Your task to perform on an android device: change your default location settings in chrome Image 0: 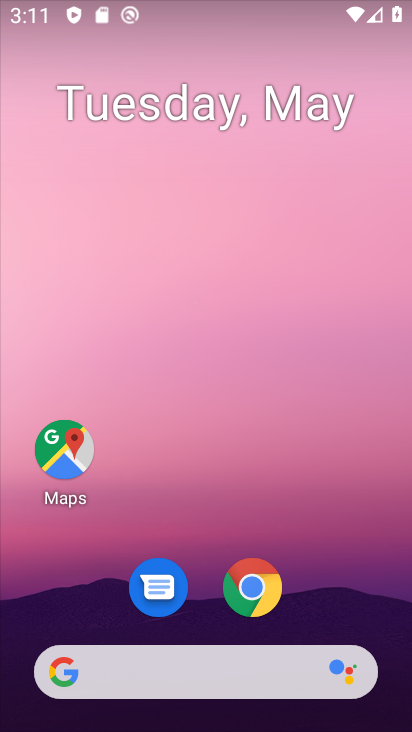
Step 0: click (238, 588)
Your task to perform on an android device: change your default location settings in chrome Image 1: 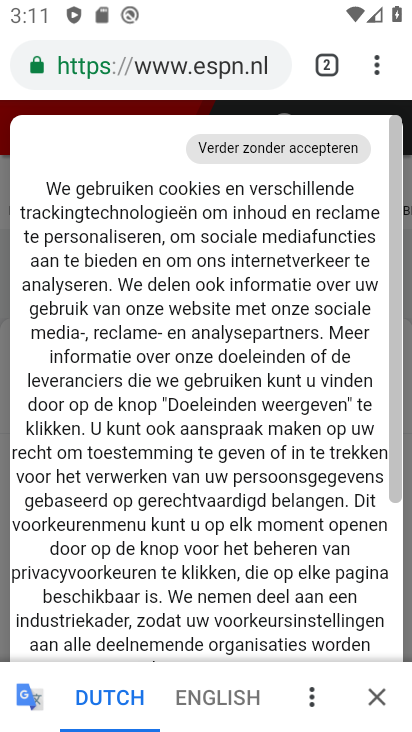
Step 1: click (366, 62)
Your task to perform on an android device: change your default location settings in chrome Image 2: 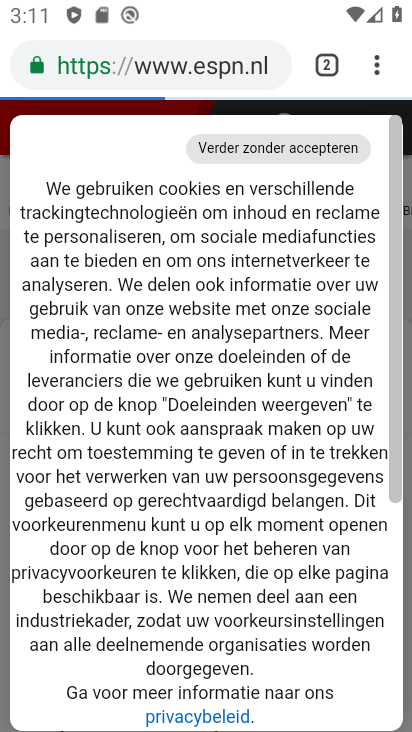
Step 2: click (377, 55)
Your task to perform on an android device: change your default location settings in chrome Image 3: 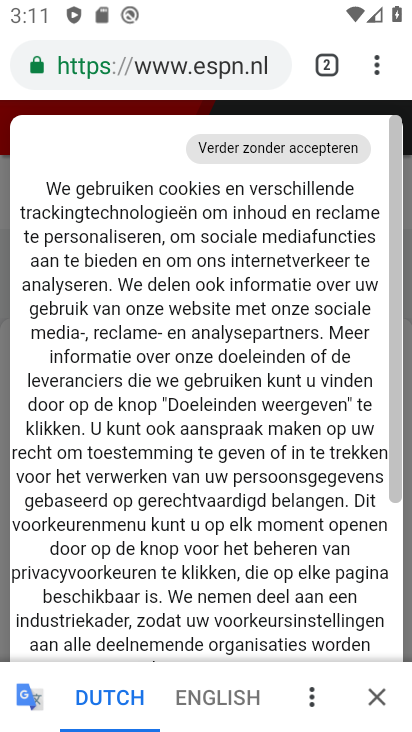
Step 3: click (372, 67)
Your task to perform on an android device: change your default location settings in chrome Image 4: 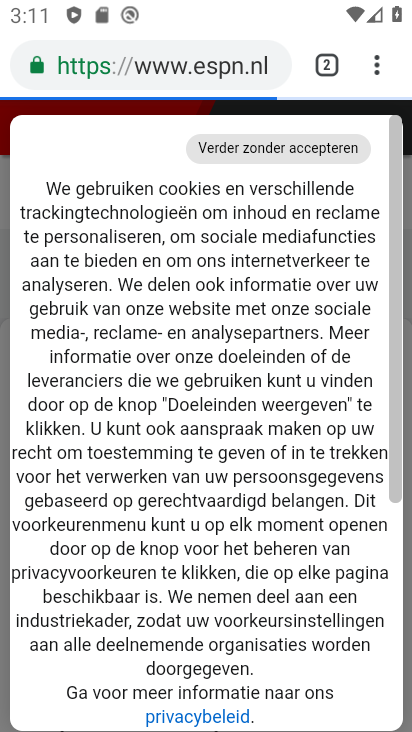
Step 4: click (377, 68)
Your task to perform on an android device: change your default location settings in chrome Image 5: 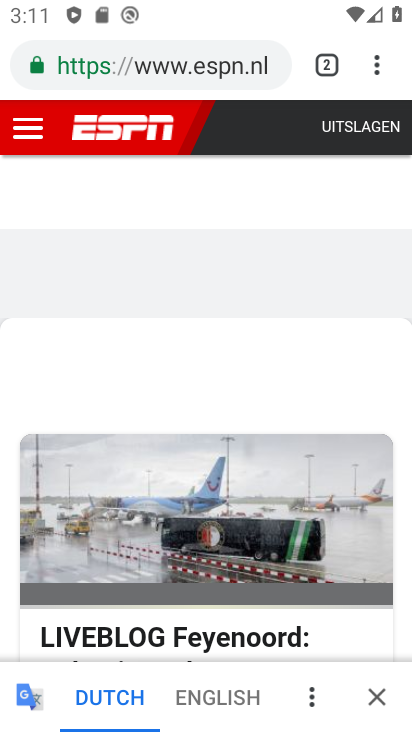
Step 5: click (356, 67)
Your task to perform on an android device: change your default location settings in chrome Image 6: 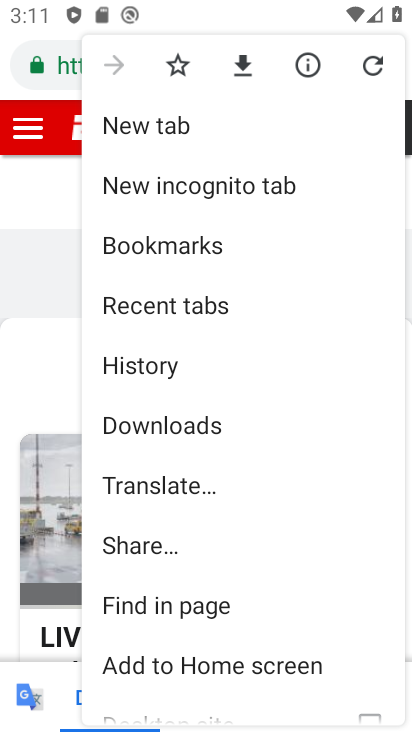
Step 6: drag from (187, 501) to (284, 178)
Your task to perform on an android device: change your default location settings in chrome Image 7: 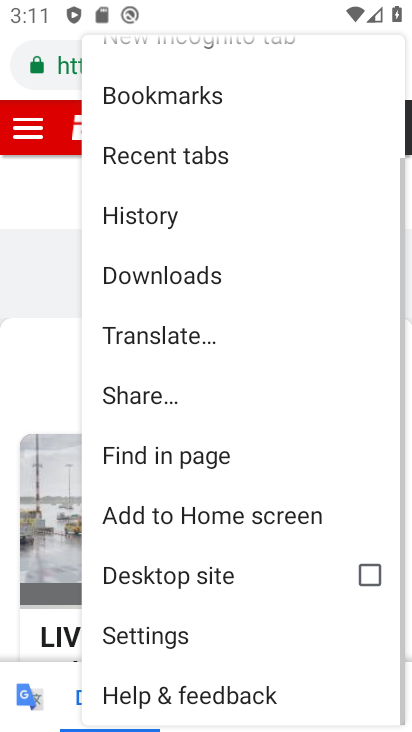
Step 7: click (213, 622)
Your task to perform on an android device: change your default location settings in chrome Image 8: 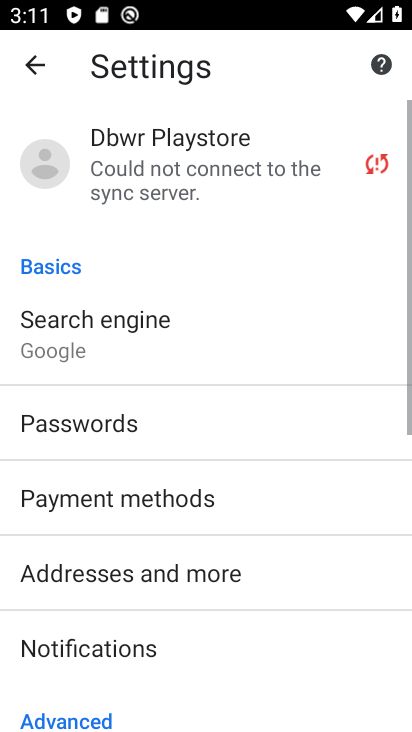
Step 8: click (91, 330)
Your task to perform on an android device: change your default location settings in chrome Image 9: 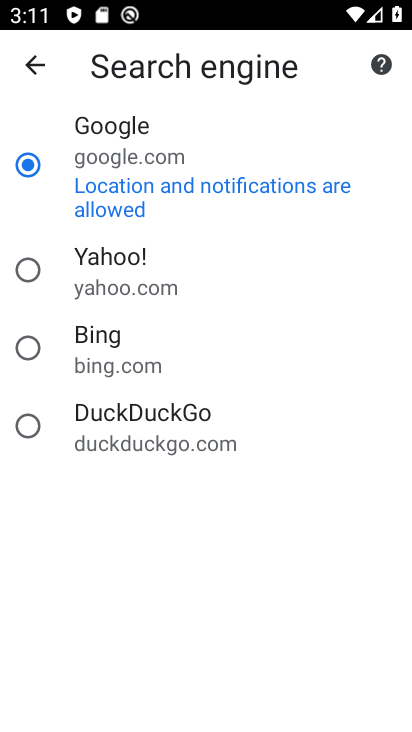
Step 9: click (98, 327)
Your task to perform on an android device: change your default location settings in chrome Image 10: 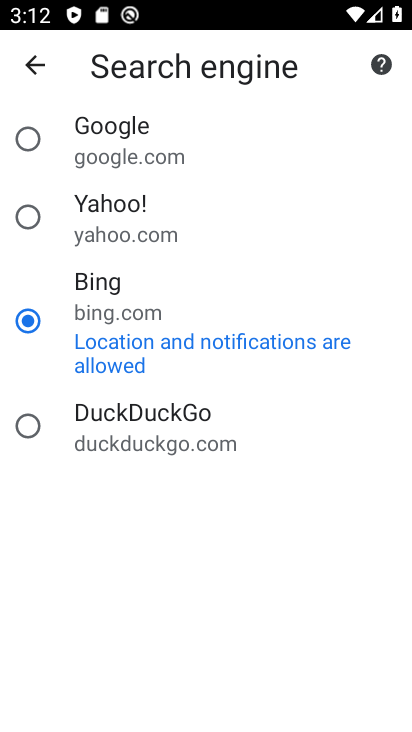
Step 10: task complete